Your task to perform on an android device: check google app version Image 0: 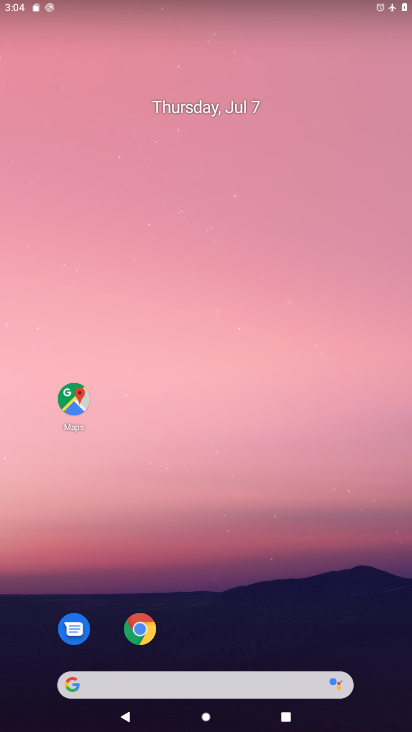
Step 0: drag from (303, 545) to (251, 127)
Your task to perform on an android device: check google app version Image 1: 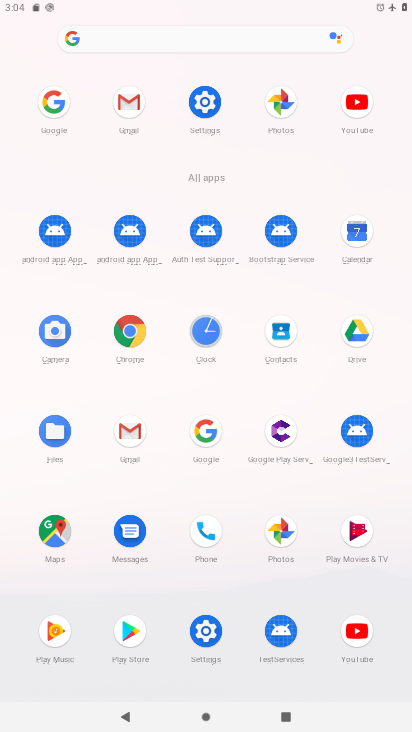
Step 1: click (204, 423)
Your task to perform on an android device: check google app version Image 2: 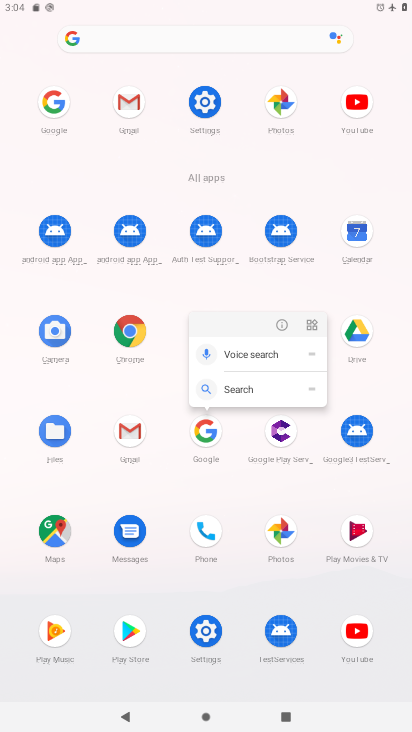
Step 2: click (286, 325)
Your task to perform on an android device: check google app version Image 3: 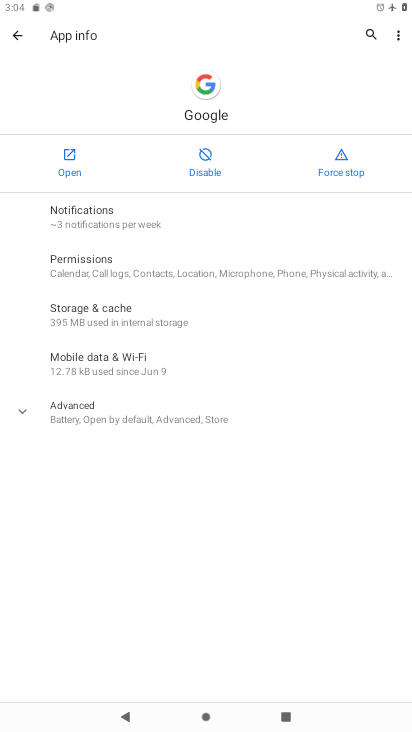
Step 3: click (95, 420)
Your task to perform on an android device: check google app version Image 4: 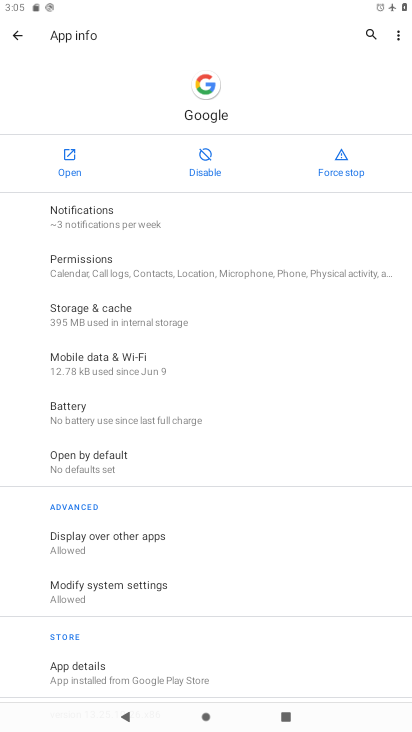
Step 4: task complete